Your task to perform on an android device: Search for Mexican restaurants on Maps Image 0: 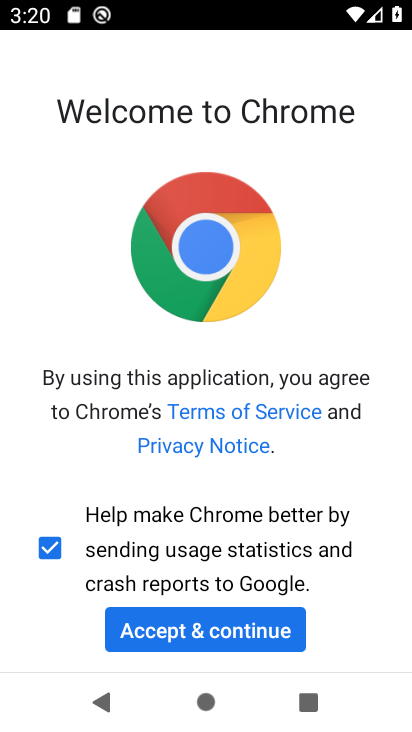
Step 0: press home button
Your task to perform on an android device: Search for Mexican restaurants on Maps Image 1: 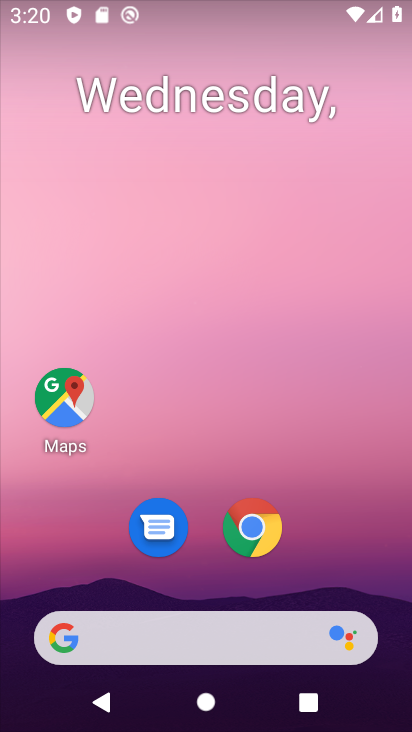
Step 1: click (66, 414)
Your task to perform on an android device: Search for Mexican restaurants on Maps Image 2: 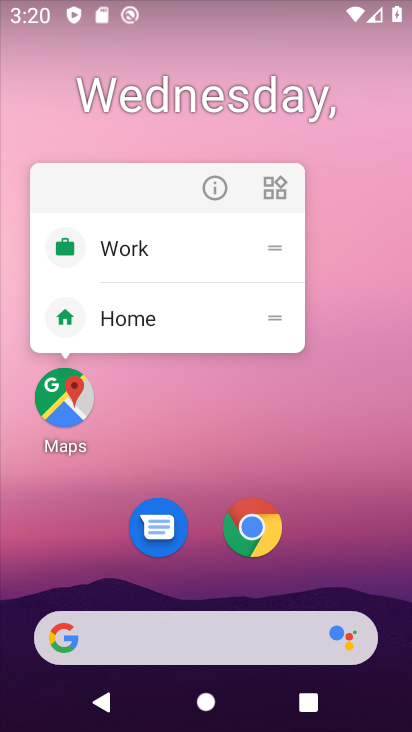
Step 2: click (67, 411)
Your task to perform on an android device: Search for Mexican restaurants on Maps Image 3: 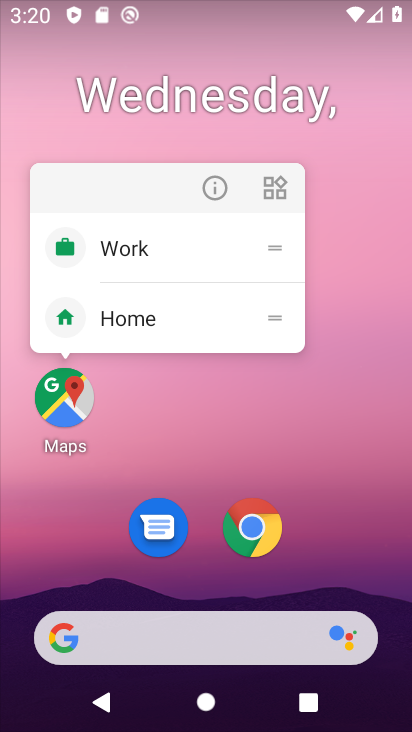
Step 3: click (70, 390)
Your task to perform on an android device: Search for Mexican restaurants on Maps Image 4: 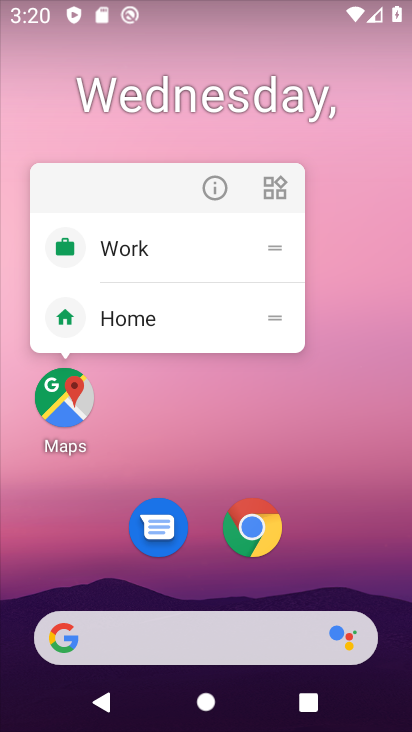
Step 4: click (67, 409)
Your task to perform on an android device: Search for Mexican restaurants on Maps Image 5: 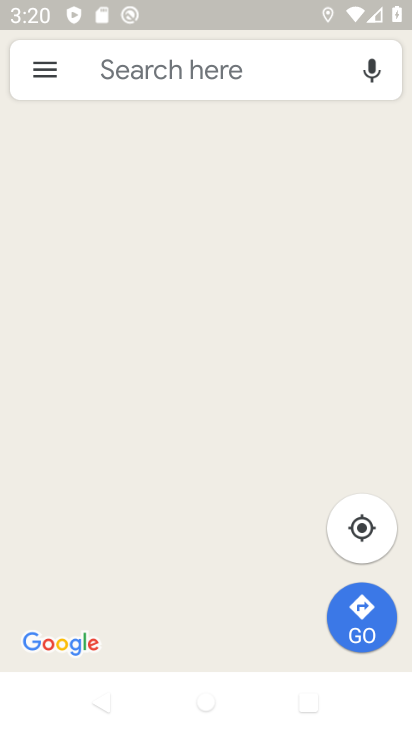
Step 5: click (187, 77)
Your task to perform on an android device: Search for Mexican restaurants on Maps Image 6: 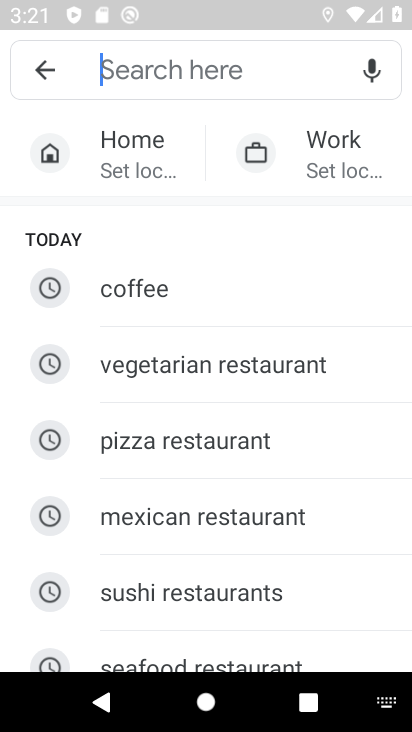
Step 6: type "mexican restaurants"
Your task to perform on an android device: Search for Mexican restaurants on Maps Image 7: 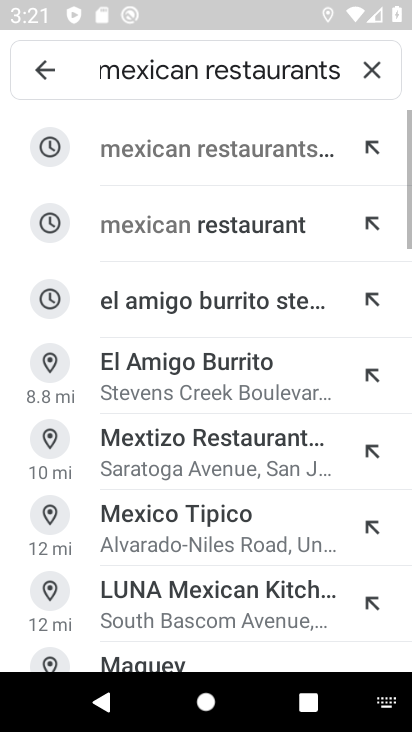
Step 7: click (204, 150)
Your task to perform on an android device: Search for Mexican restaurants on Maps Image 8: 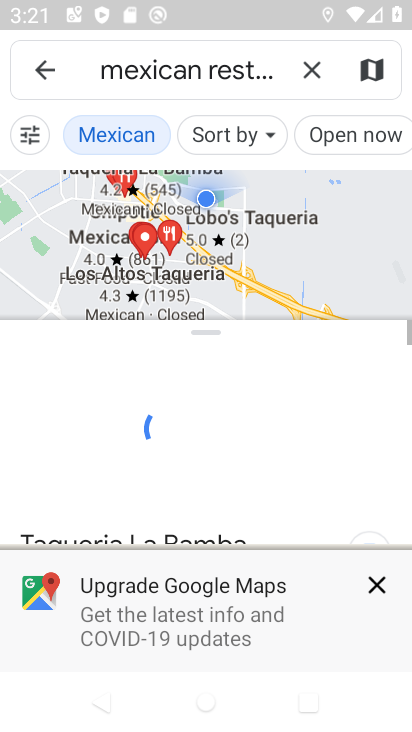
Step 8: task complete